Your task to perform on an android device: check battery use Image 0: 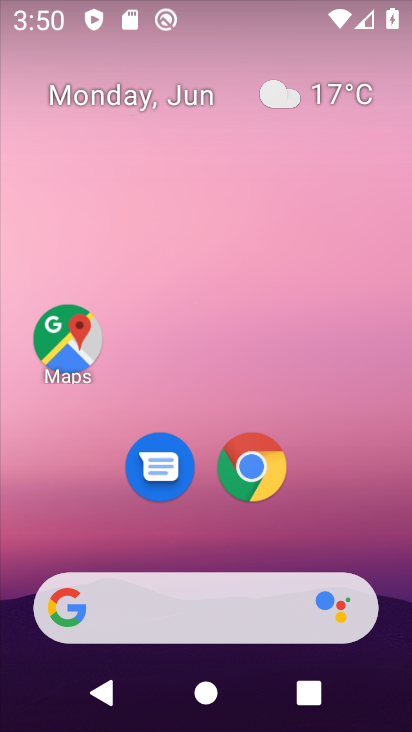
Step 0: drag from (209, 560) to (335, 5)
Your task to perform on an android device: check battery use Image 1: 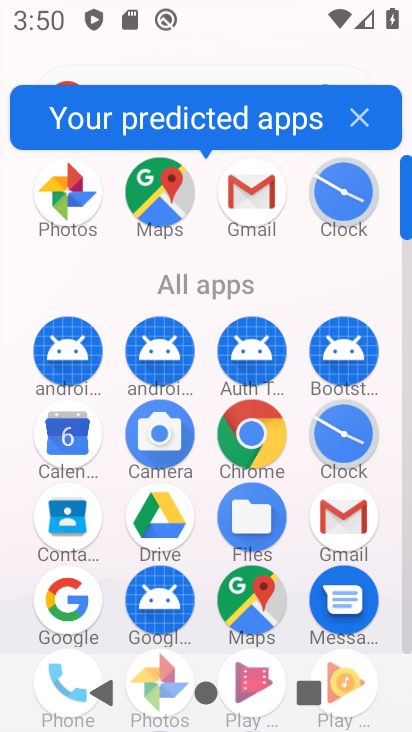
Step 1: drag from (213, 551) to (294, 147)
Your task to perform on an android device: check battery use Image 2: 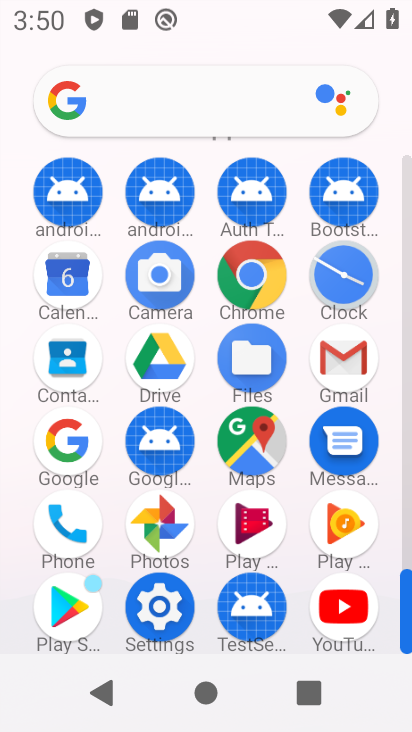
Step 2: click (156, 610)
Your task to perform on an android device: check battery use Image 3: 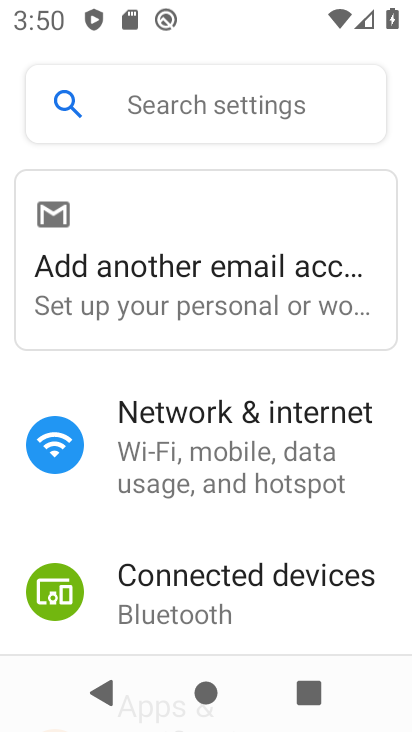
Step 3: drag from (199, 489) to (280, 154)
Your task to perform on an android device: check battery use Image 4: 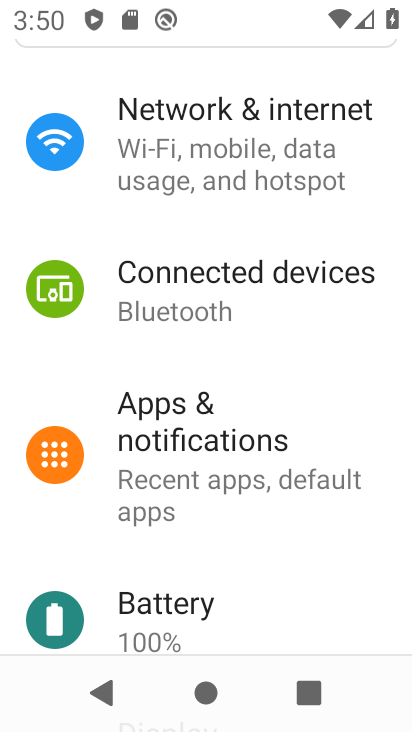
Step 4: drag from (207, 558) to (222, 510)
Your task to perform on an android device: check battery use Image 5: 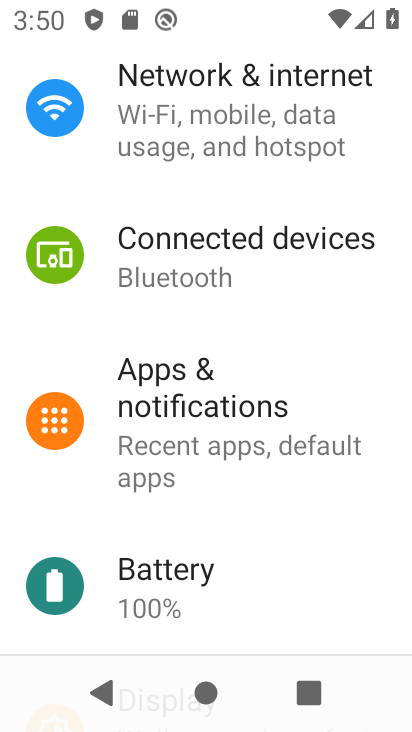
Step 5: click (162, 577)
Your task to perform on an android device: check battery use Image 6: 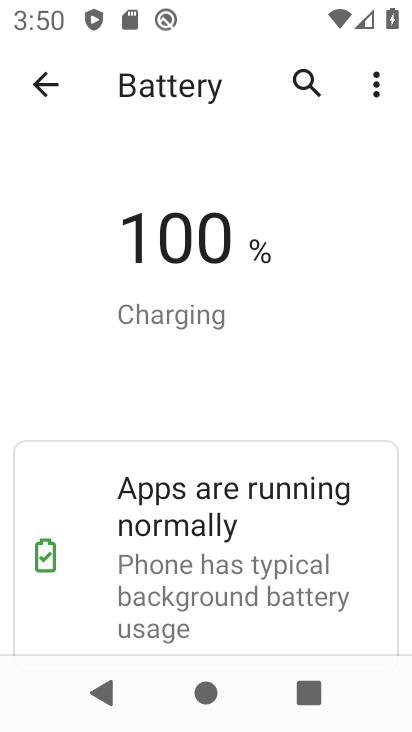
Step 6: drag from (200, 540) to (266, 173)
Your task to perform on an android device: check battery use Image 7: 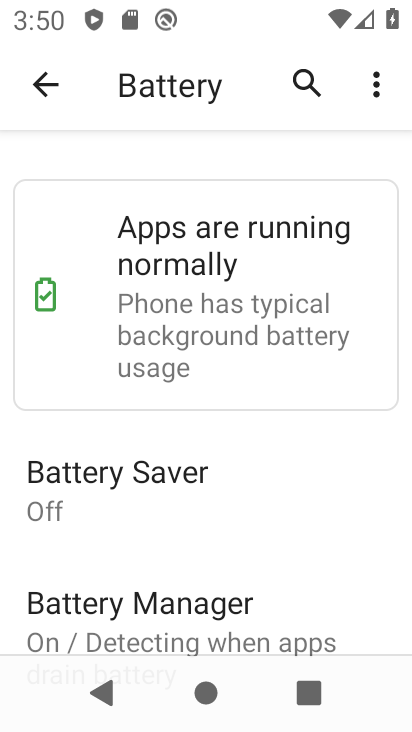
Step 7: drag from (229, 533) to (238, 436)
Your task to perform on an android device: check battery use Image 8: 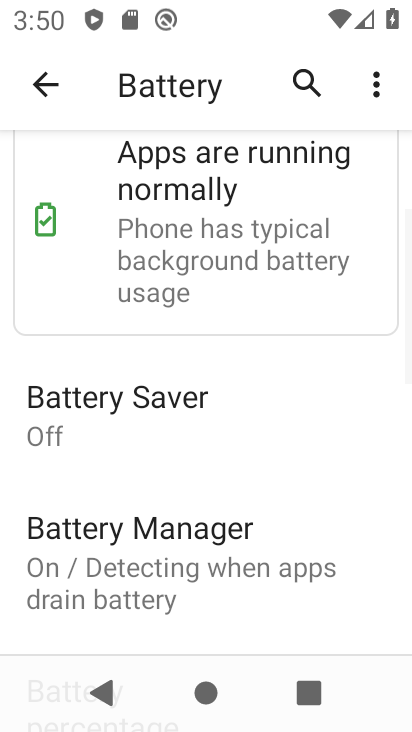
Step 8: click (375, 77)
Your task to perform on an android device: check battery use Image 9: 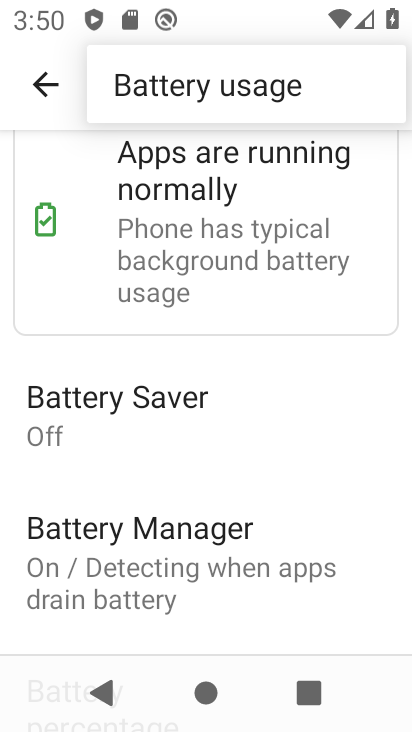
Step 9: click (227, 83)
Your task to perform on an android device: check battery use Image 10: 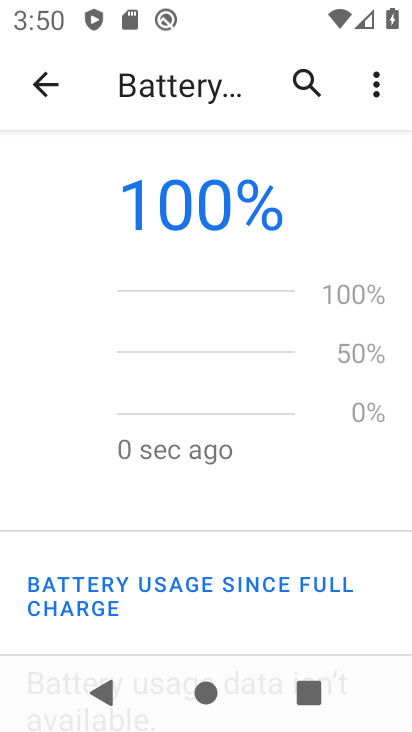
Step 10: task complete